Your task to perform on an android device: uninstall "Google Play services" Image 0: 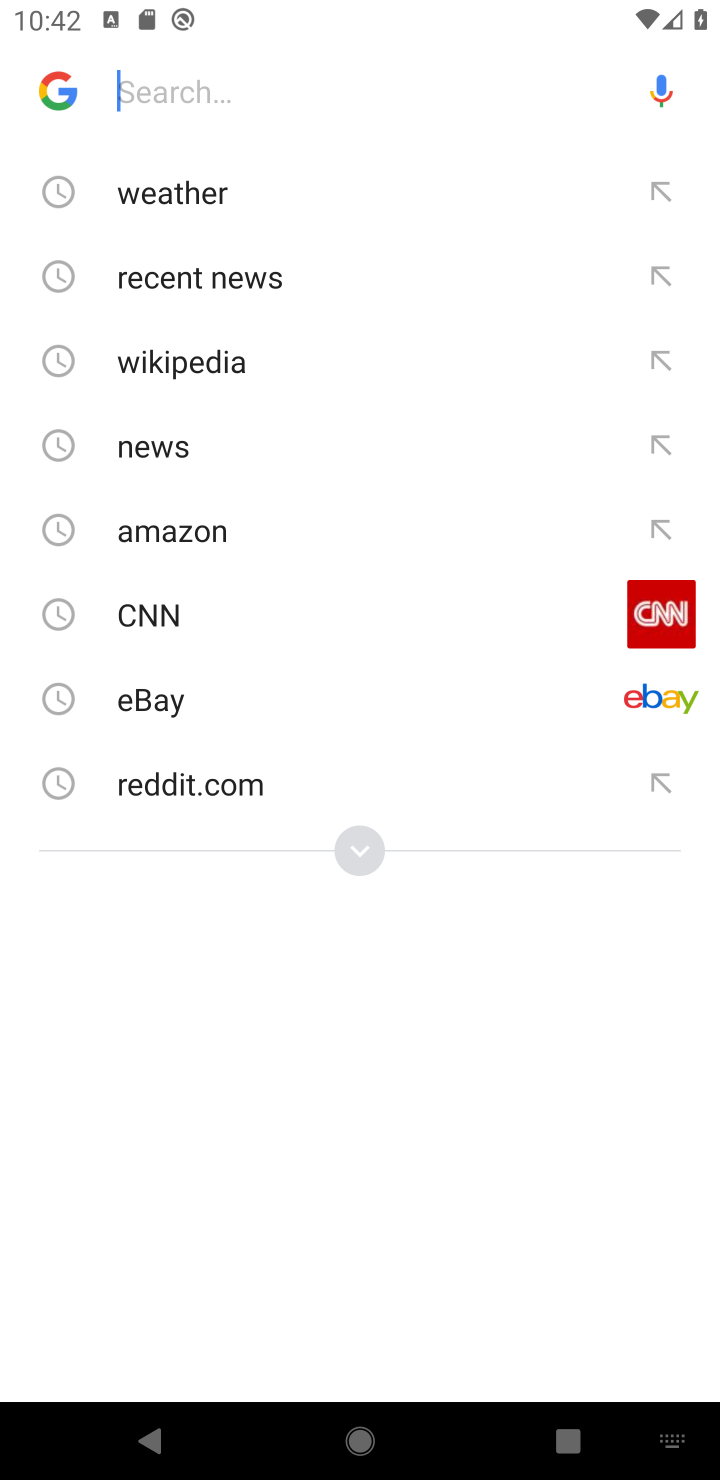
Step 0: press back button
Your task to perform on an android device: uninstall "Google Play services" Image 1: 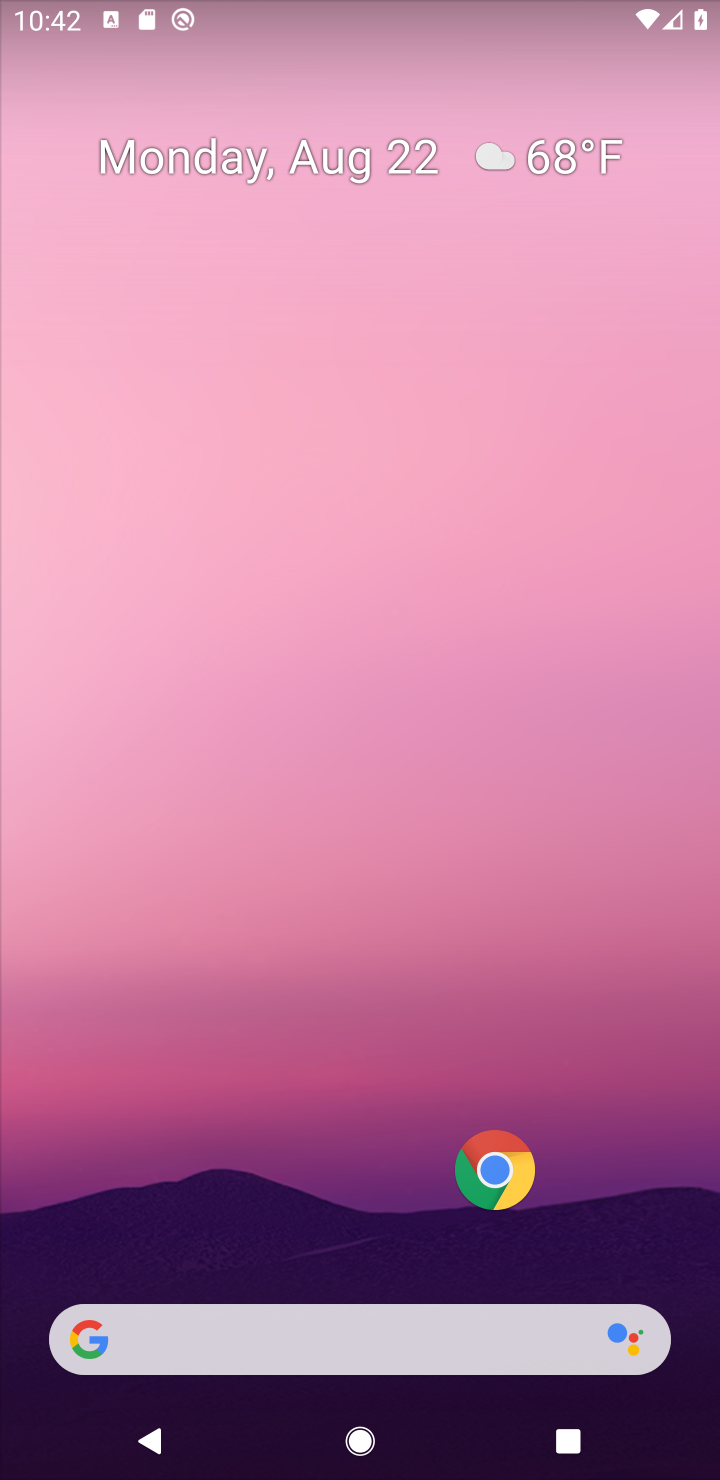
Step 1: drag from (295, 761) to (293, 42)
Your task to perform on an android device: uninstall "Google Play services" Image 2: 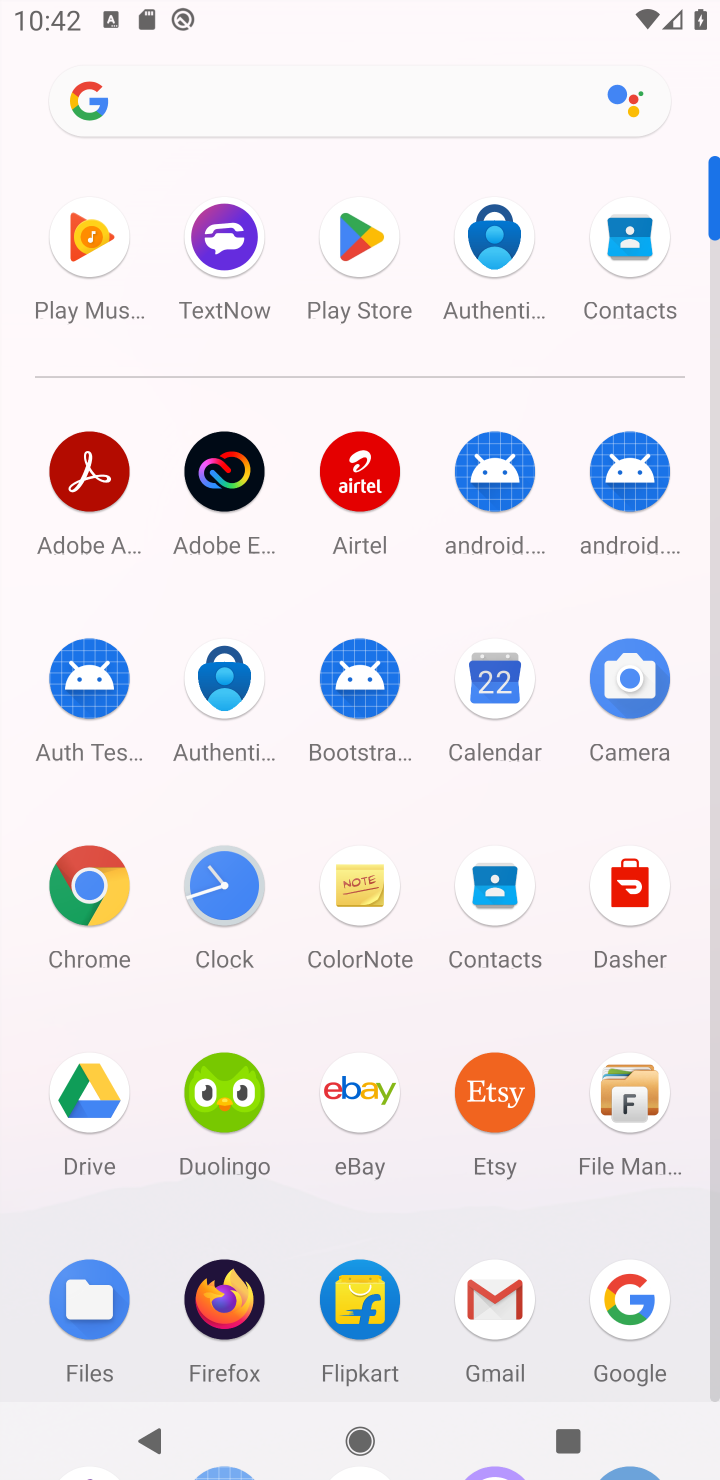
Step 2: click (362, 233)
Your task to perform on an android device: uninstall "Google Play services" Image 3: 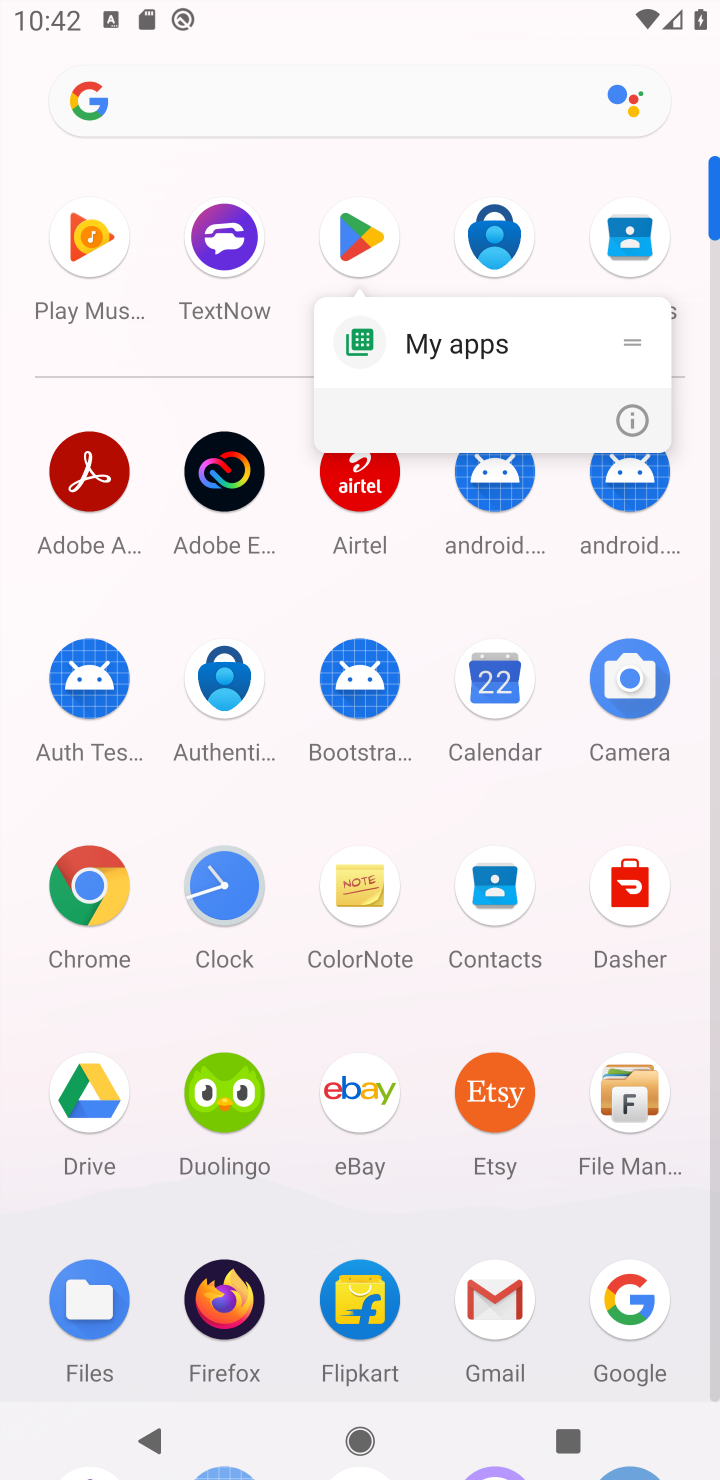
Step 3: click (346, 235)
Your task to perform on an android device: uninstall "Google Play services" Image 4: 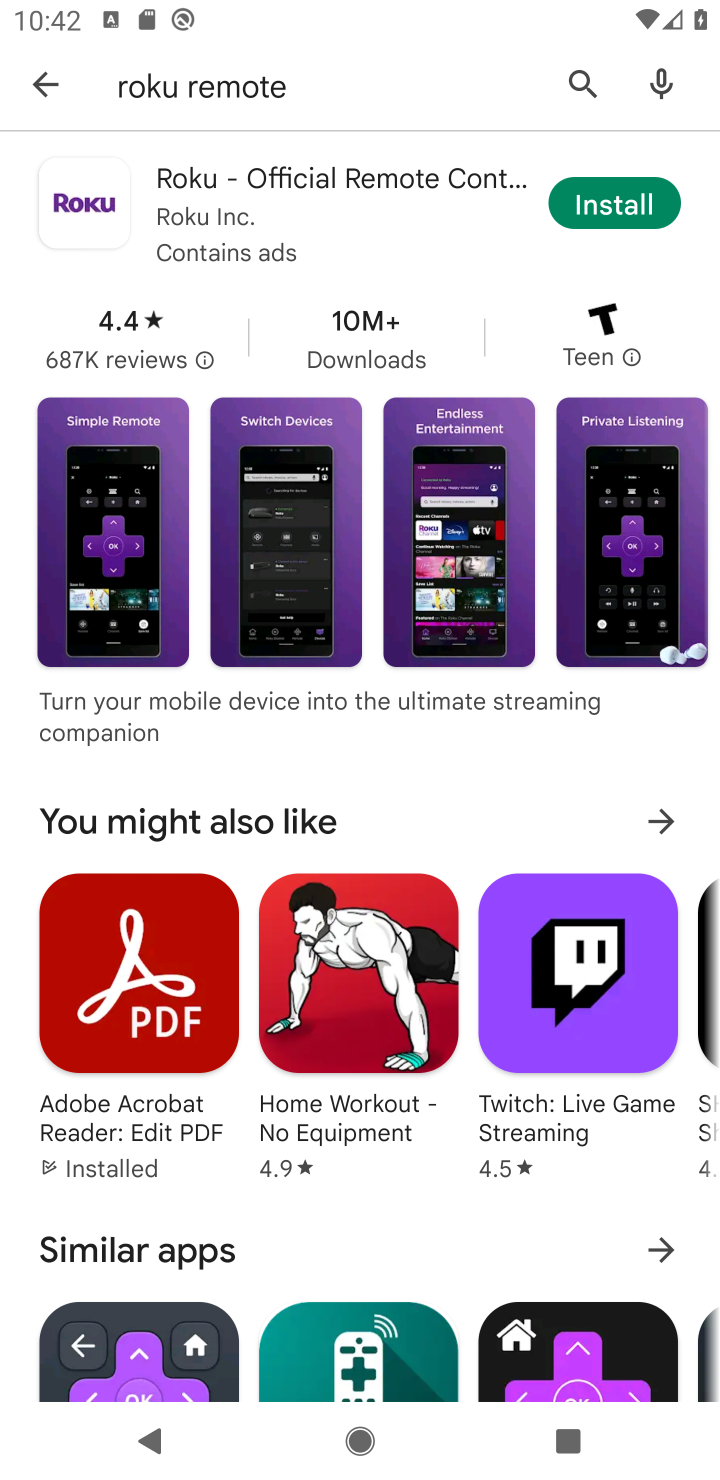
Step 4: click (573, 87)
Your task to perform on an android device: uninstall "Google Play services" Image 5: 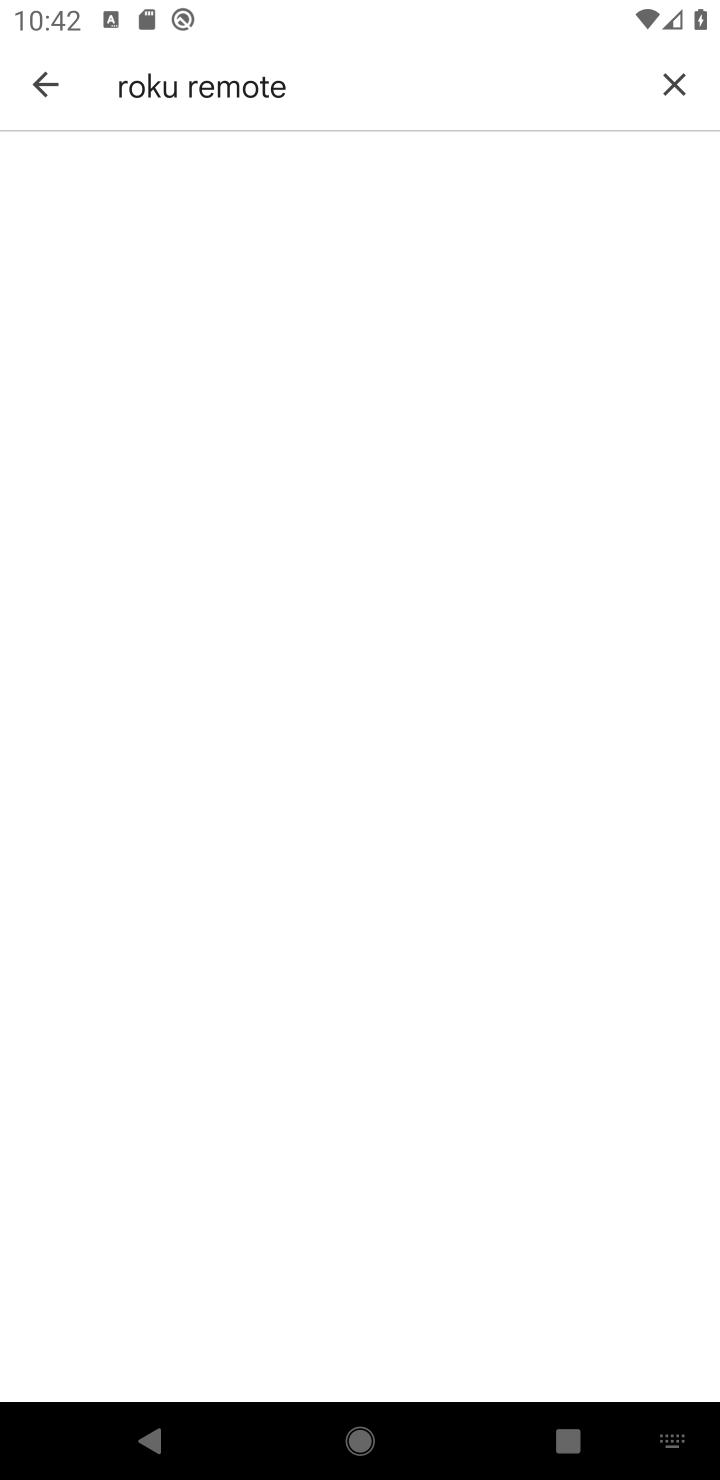
Step 5: click (665, 72)
Your task to perform on an android device: uninstall "Google Play services" Image 6: 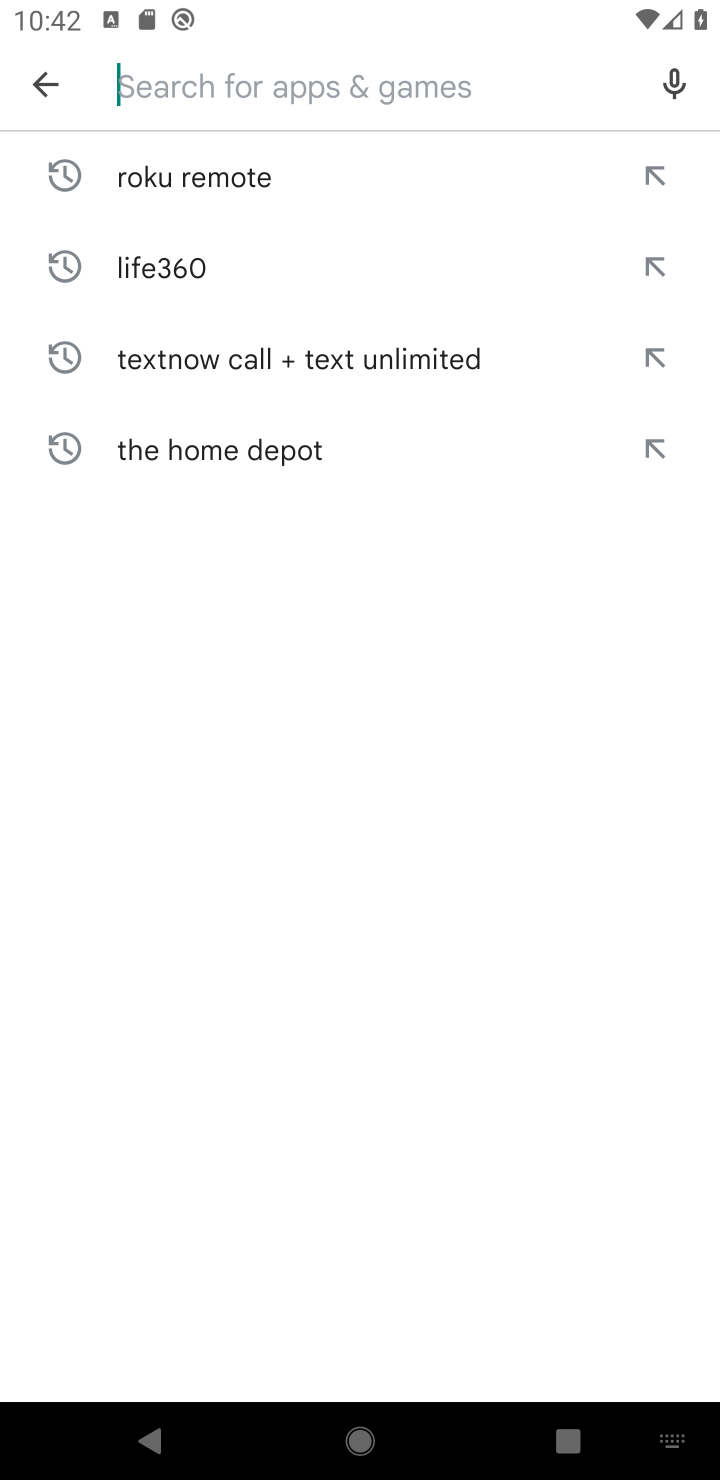
Step 6: click (170, 93)
Your task to perform on an android device: uninstall "Google Play services" Image 7: 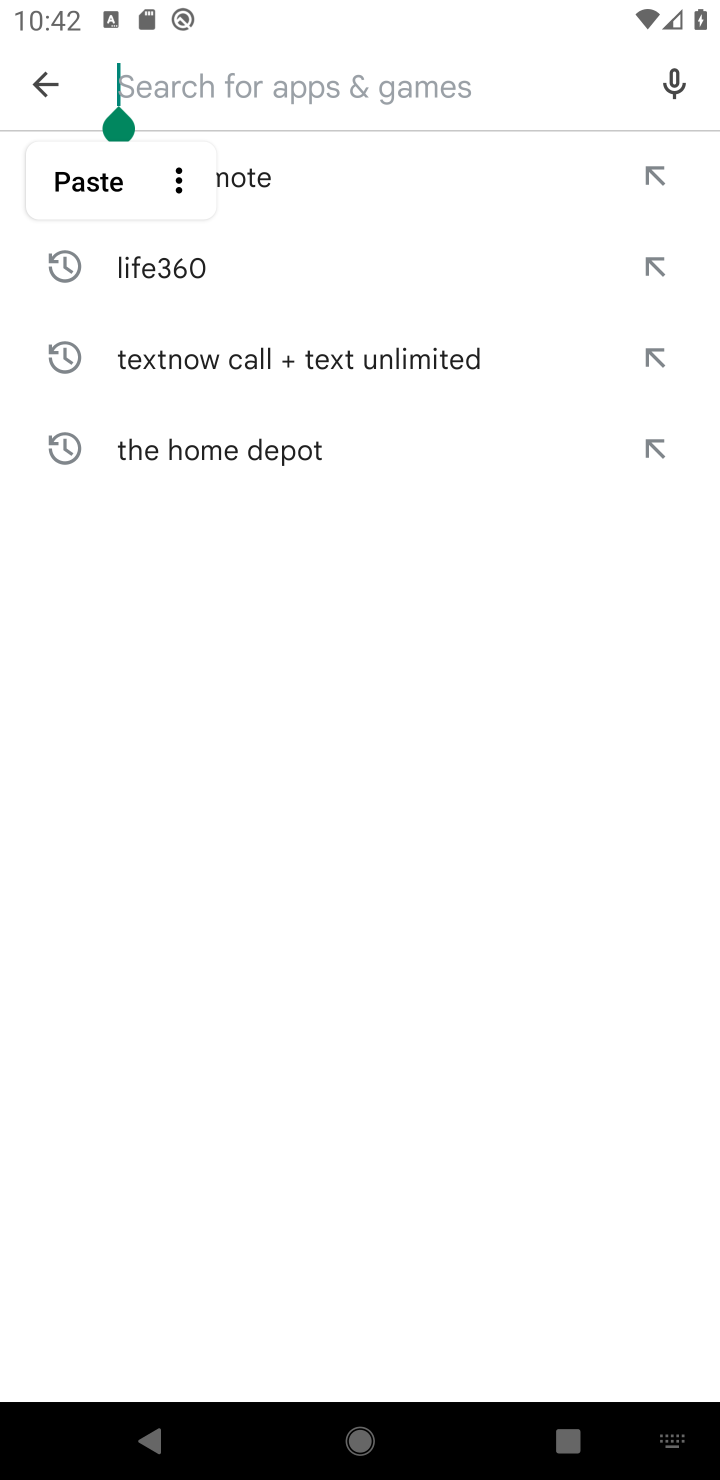
Step 7: type "Google Play services"
Your task to perform on an android device: uninstall "Google Play services" Image 8: 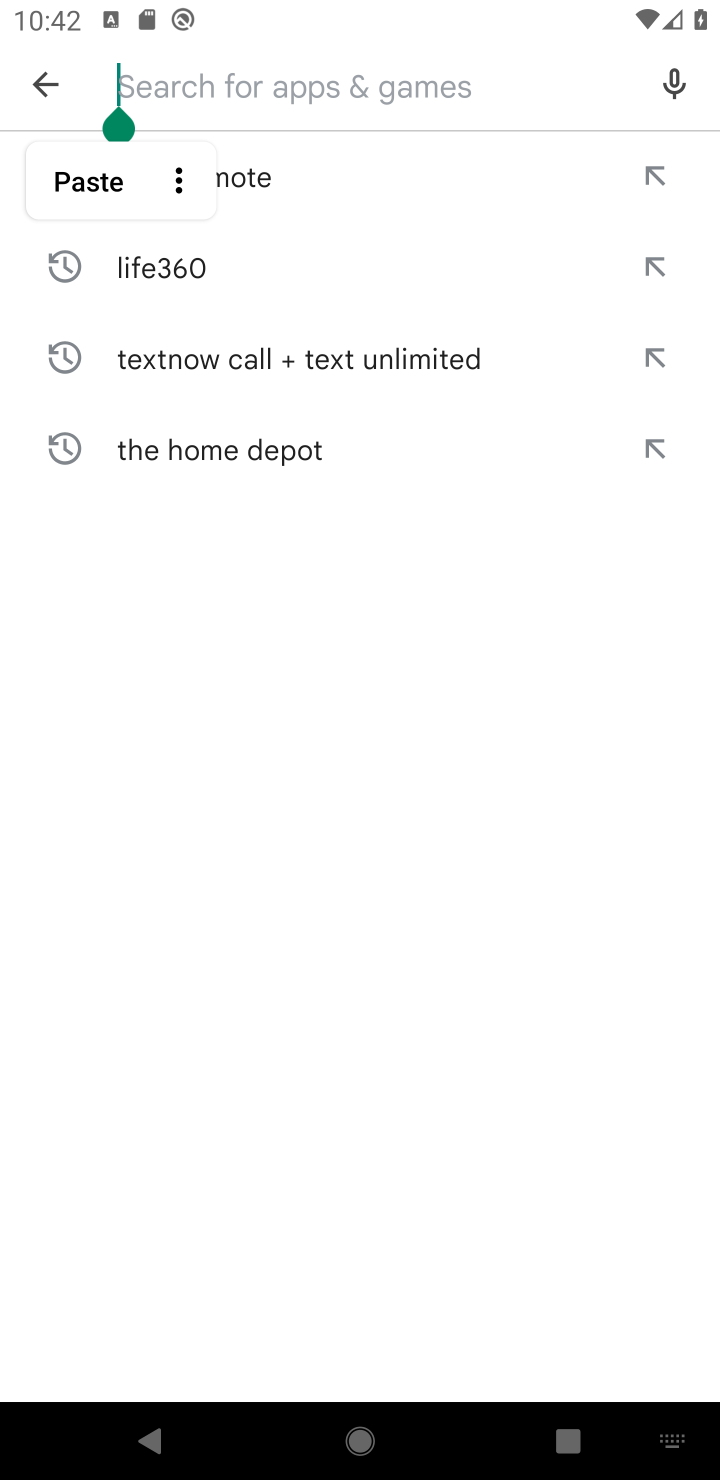
Step 8: click (315, 914)
Your task to perform on an android device: uninstall "Google Play services" Image 9: 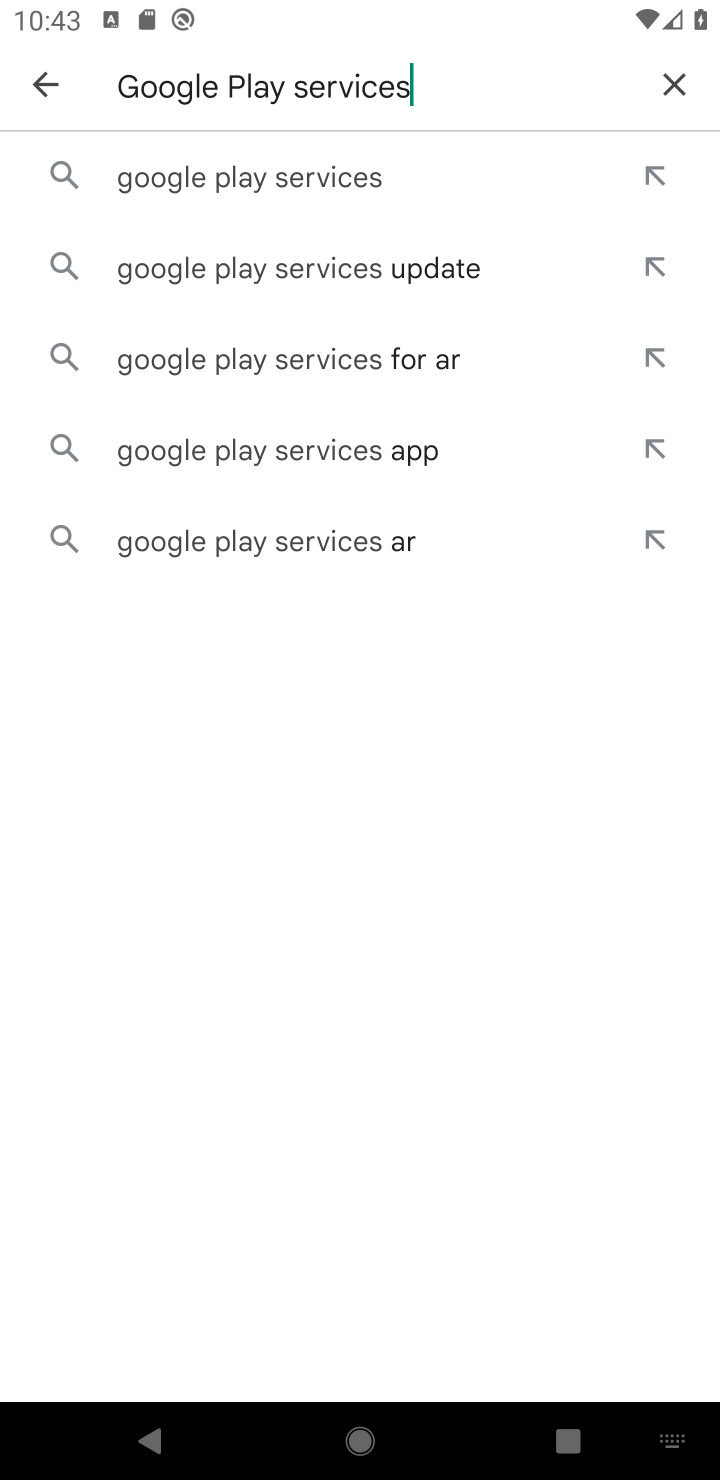
Step 9: click (303, 169)
Your task to perform on an android device: uninstall "Google Play services" Image 10: 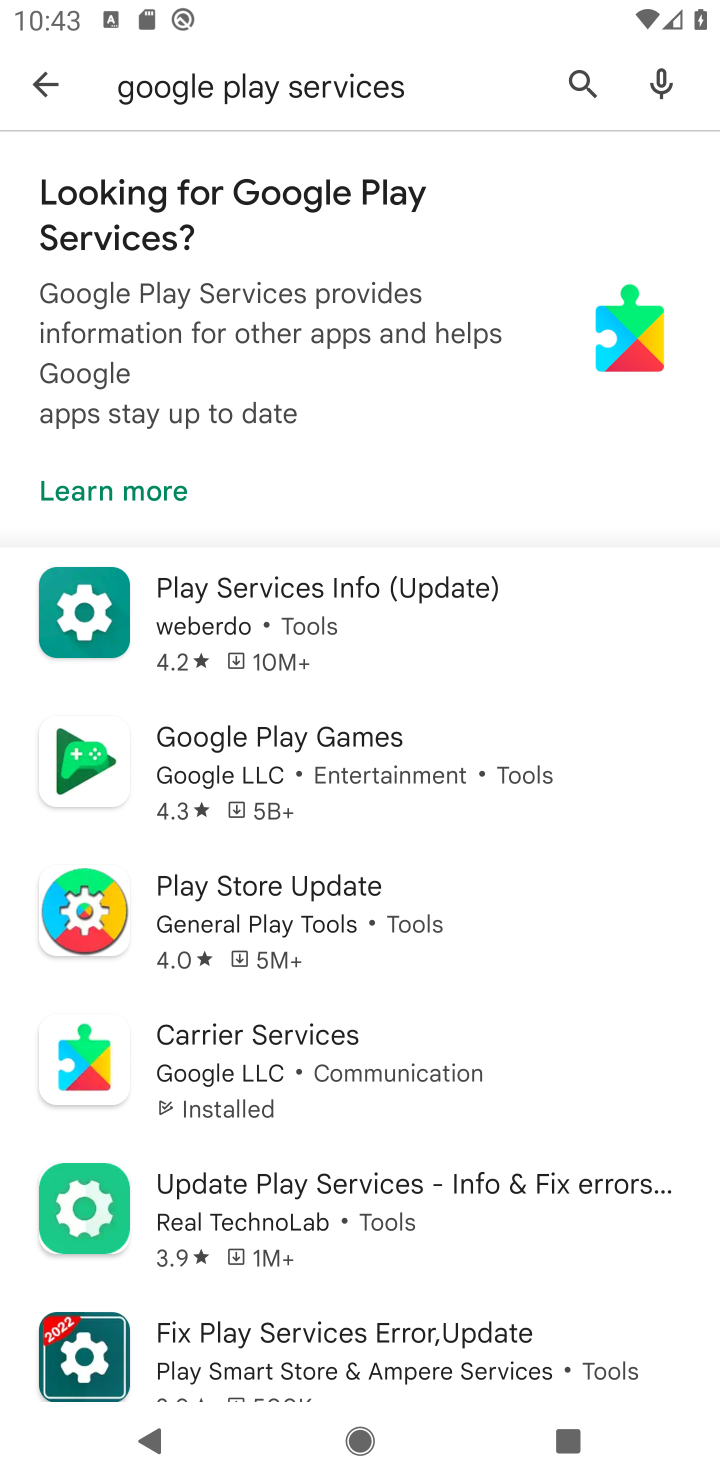
Step 10: task complete